Your task to perform on an android device: snooze an email in the gmail app Image 0: 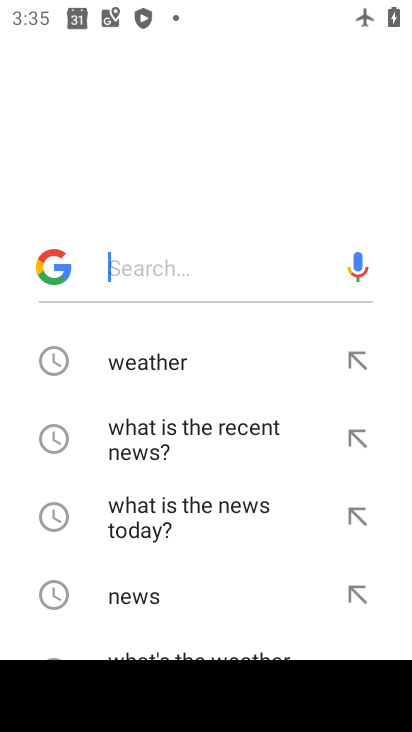
Step 0: press back button
Your task to perform on an android device: snooze an email in the gmail app Image 1: 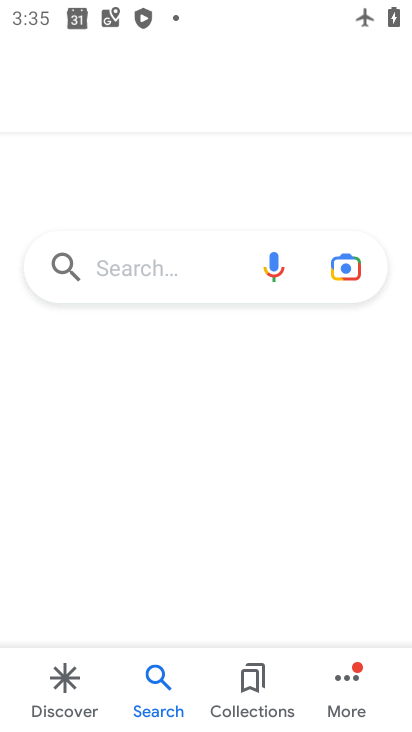
Step 1: press back button
Your task to perform on an android device: snooze an email in the gmail app Image 2: 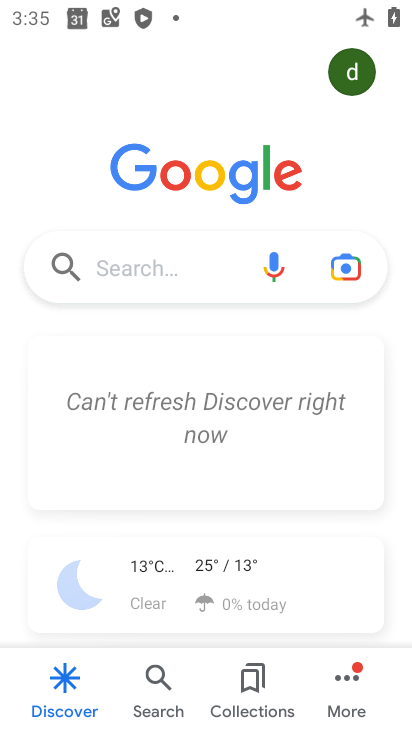
Step 2: press back button
Your task to perform on an android device: snooze an email in the gmail app Image 3: 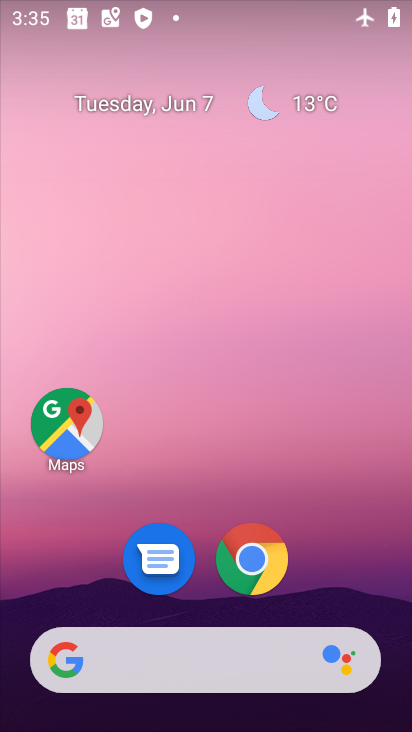
Step 3: drag from (330, 585) to (268, 189)
Your task to perform on an android device: snooze an email in the gmail app Image 4: 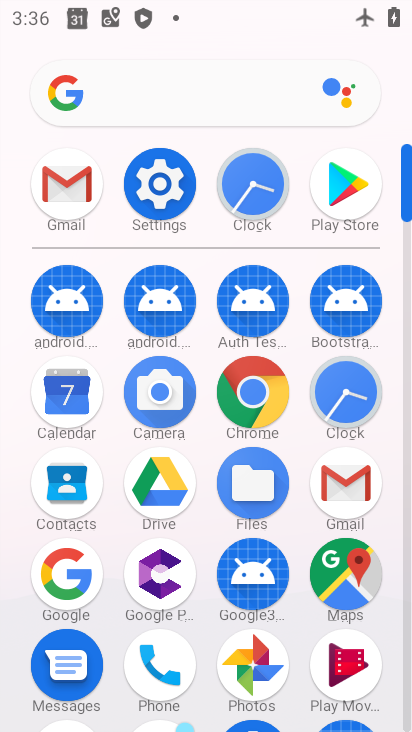
Step 4: click (62, 182)
Your task to perform on an android device: snooze an email in the gmail app Image 5: 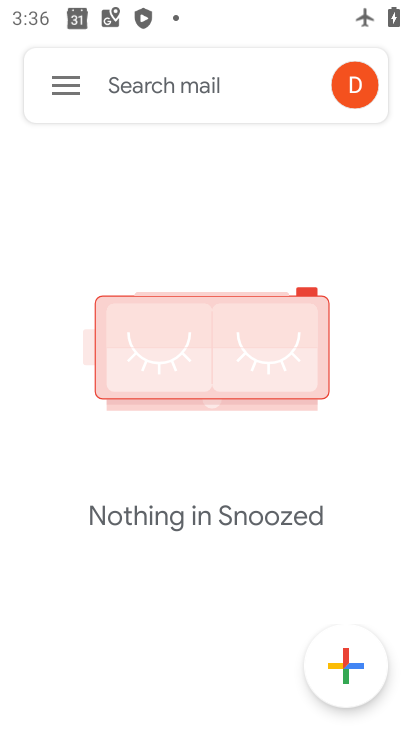
Step 5: click (58, 82)
Your task to perform on an android device: snooze an email in the gmail app Image 6: 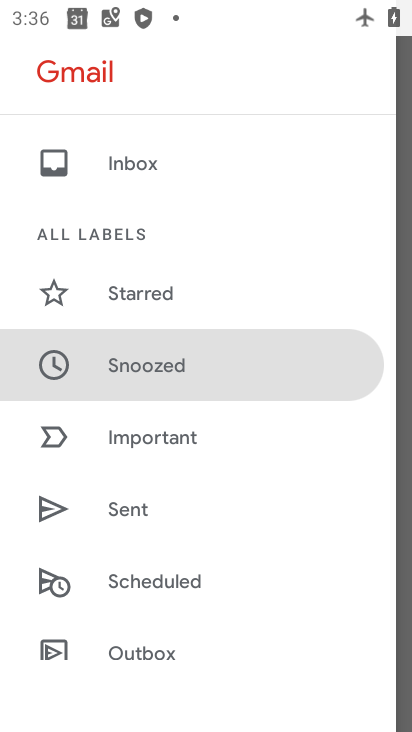
Step 6: click (131, 167)
Your task to perform on an android device: snooze an email in the gmail app Image 7: 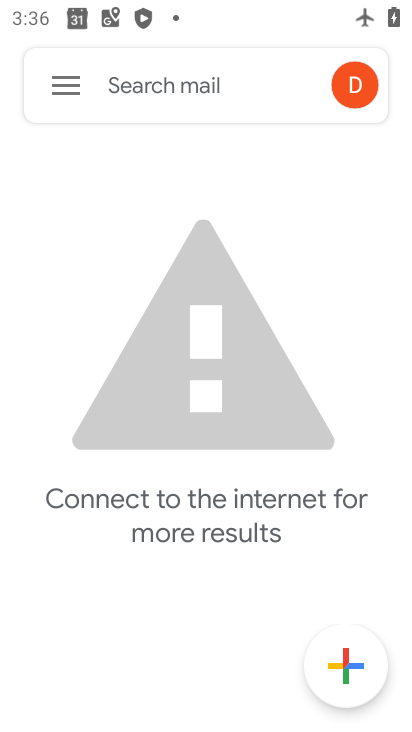
Step 7: click (67, 88)
Your task to perform on an android device: snooze an email in the gmail app Image 8: 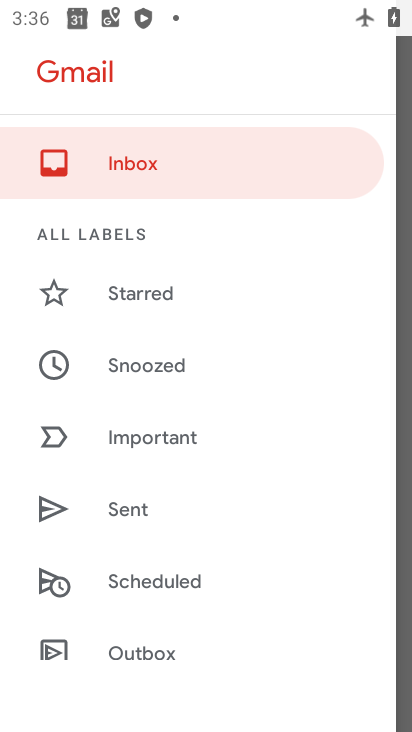
Step 8: click (158, 362)
Your task to perform on an android device: snooze an email in the gmail app Image 9: 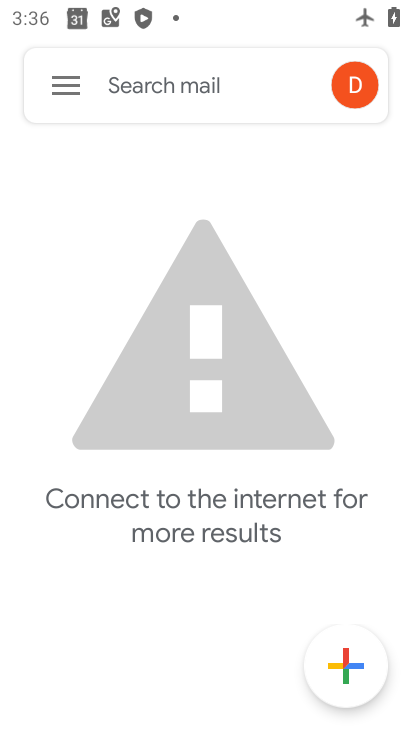
Step 9: click (68, 88)
Your task to perform on an android device: snooze an email in the gmail app Image 10: 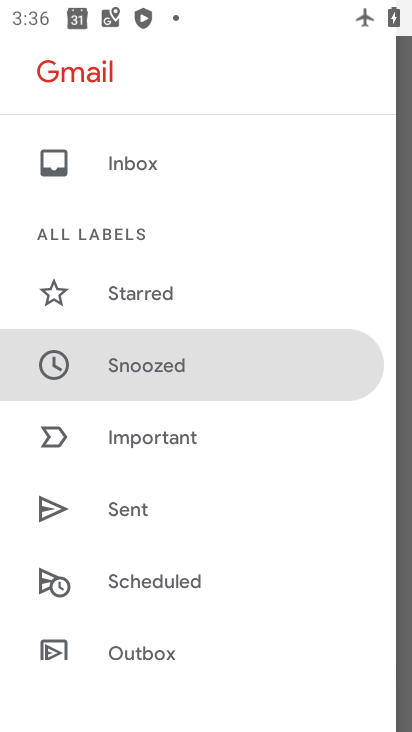
Step 10: drag from (156, 480) to (204, 376)
Your task to perform on an android device: snooze an email in the gmail app Image 11: 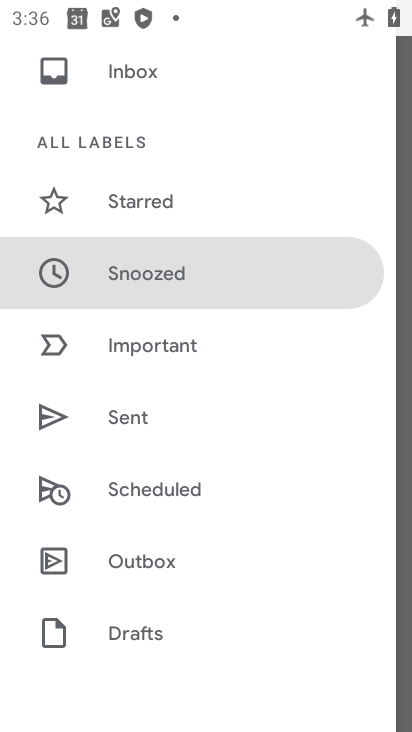
Step 11: drag from (138, 526) to (197, 436)
Your task to perform on an android device: snooze an email in the gmail app Image 12: 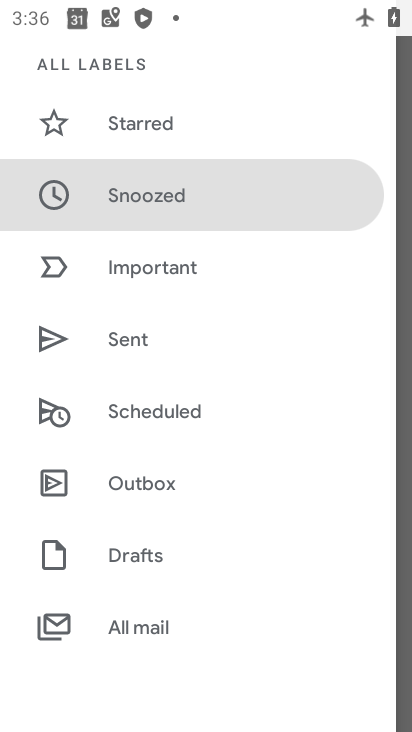
Step 12: click (147, 629)
Your task to perform on an android device: snooze an email in the gmail app Image 13: 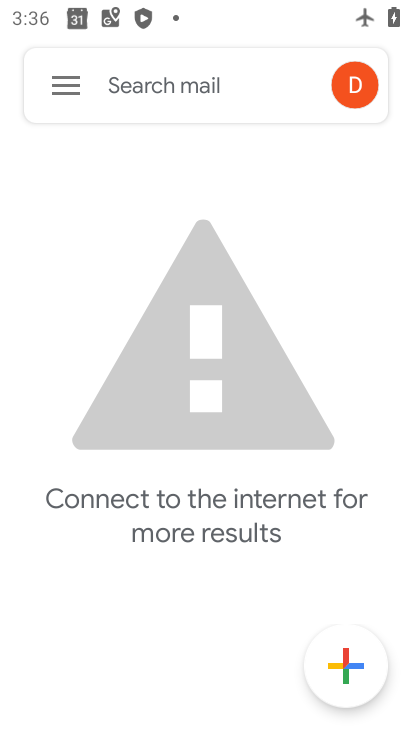
Step 13: task complete